Your task to perform on an android device: turn pop-ups on in chrome Image 0: 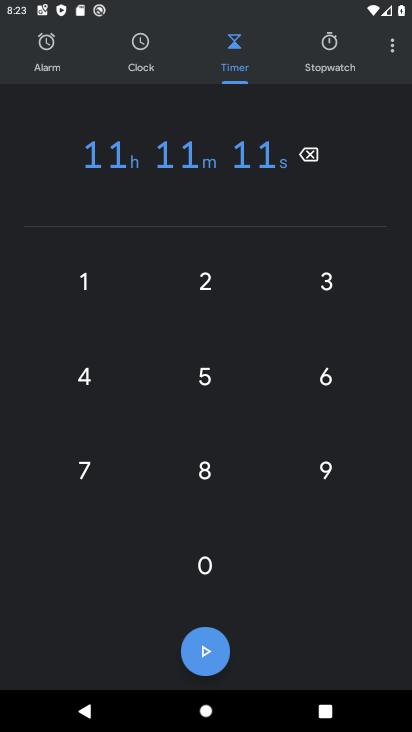
Step 0: press home button
Your task to perform on an android device: turn pop-ups on in chrome Image 1: 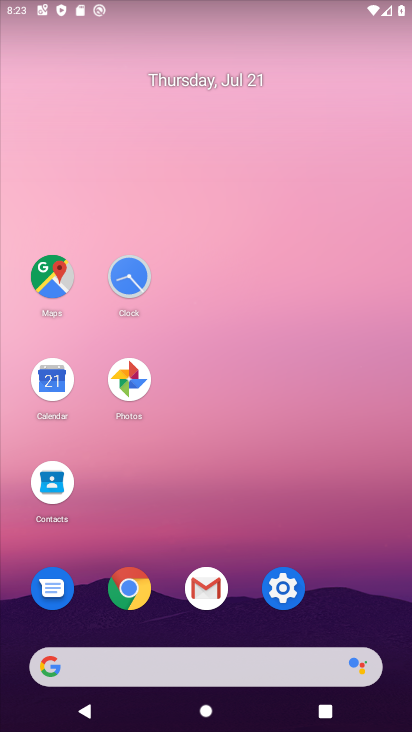
Step 1: click (127, 585)
Your task to perform on an android device: turn pop-ups on in chrome Image 2: 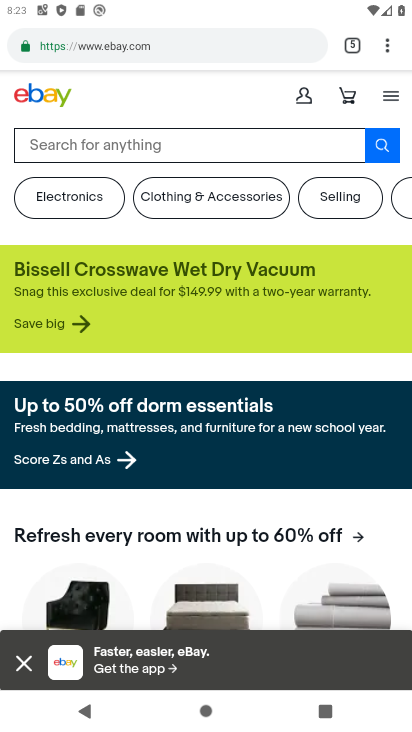
Step 2: click (385, 45)
Your task to perform on an android device: turn pop-ups on in chrome Image 3: 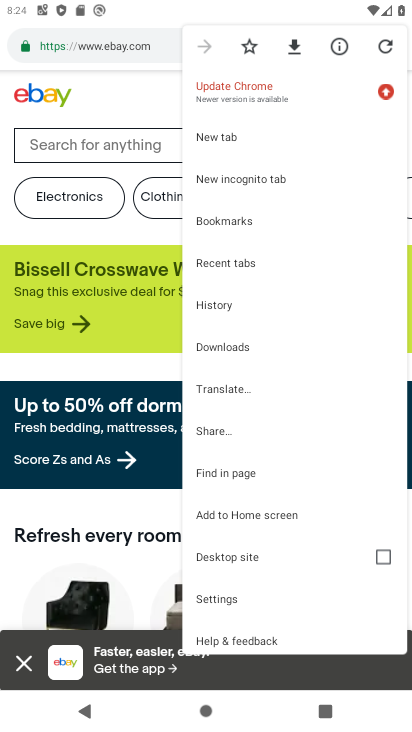
Step 3: click (222, 598)
Your task to perform on an android device: turn pop-ups on in chrome Image 4: 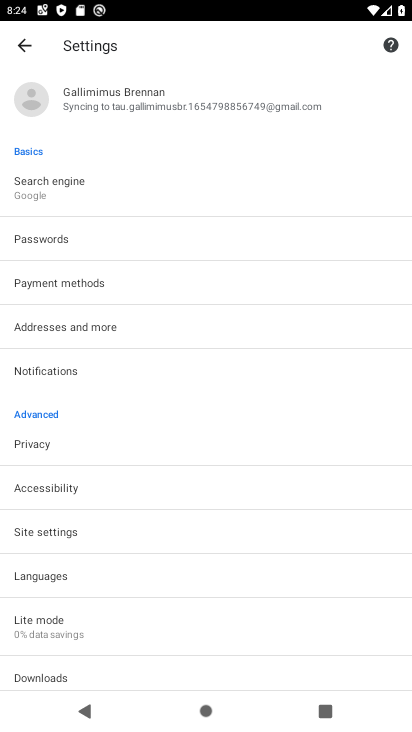
Step 4: drag from (217, 594) to (209, 290)
Your task to perform on an android device: turn pop-ups on in chrome Image 5: 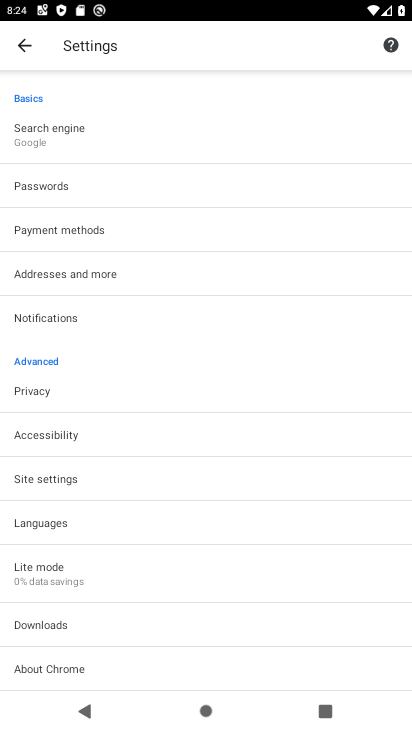
Step 5: click (47, 489)
Your task to perform on an android device: turn pop-ups on in chrome Image 6: 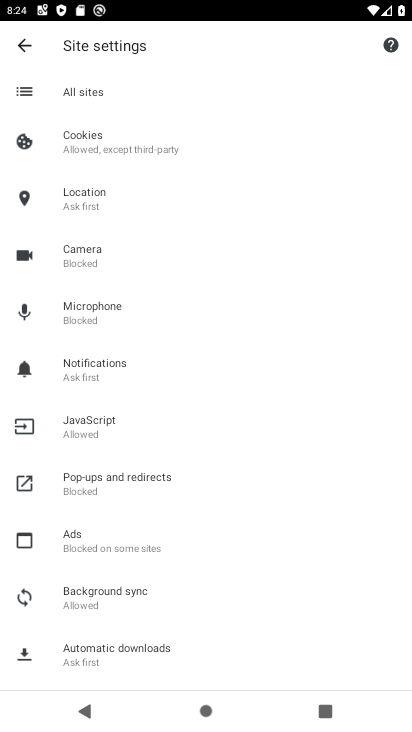
Step 6: click (110, 477)
Your task to perform on an android device: turn pop-ups on in chrome Image 7: 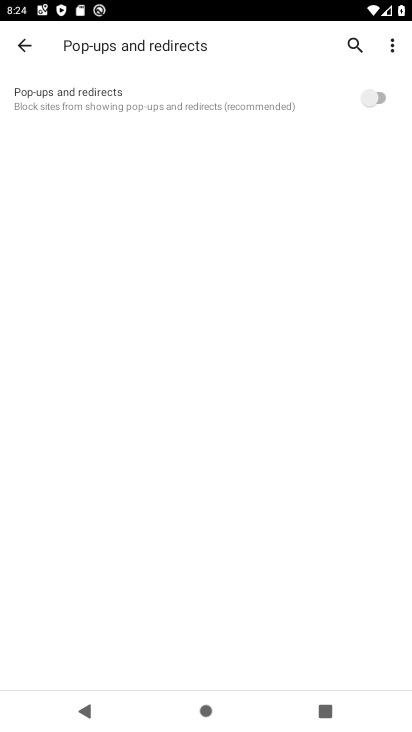
Step 7: click (366, 89)
Your task to perform on an android device: turn pop-ups on in chrome Image 8: 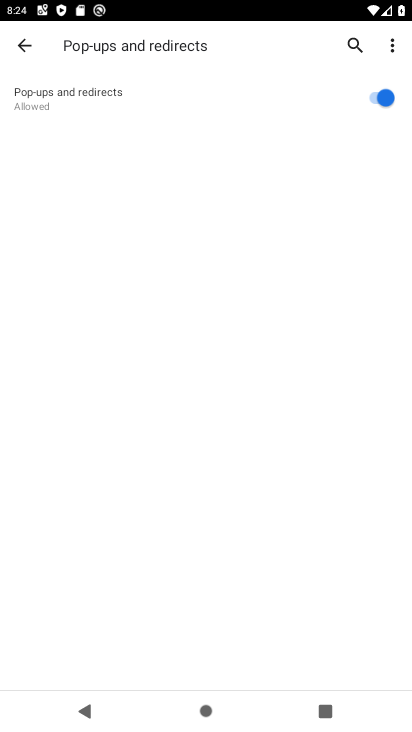
Step 8: task complete